Your task to perform on an android device: Turn on the flashlight Image 0: 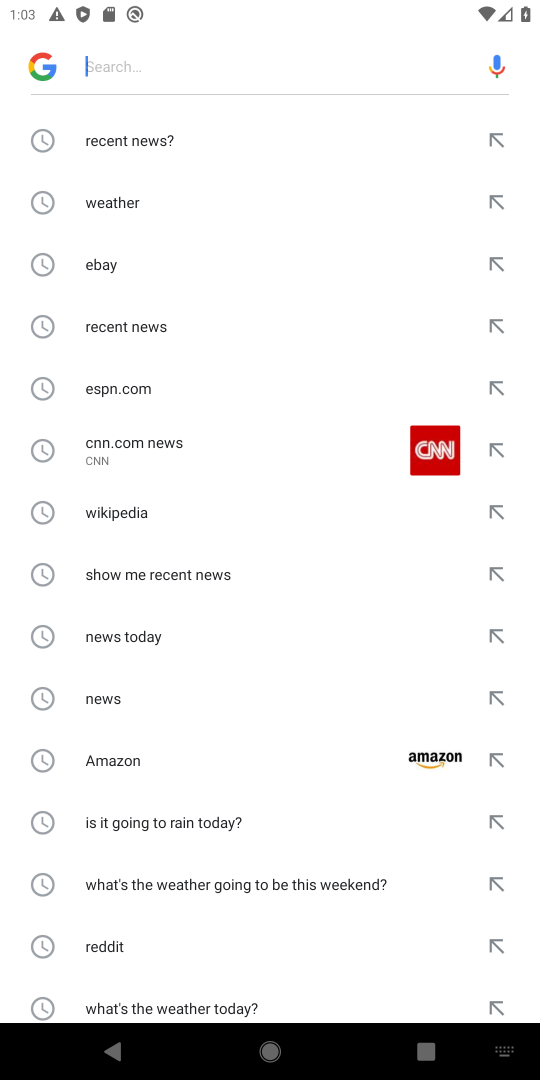
Step 0: press home button
Your task to perform on an android device: Turn on the flashlight Image 1: 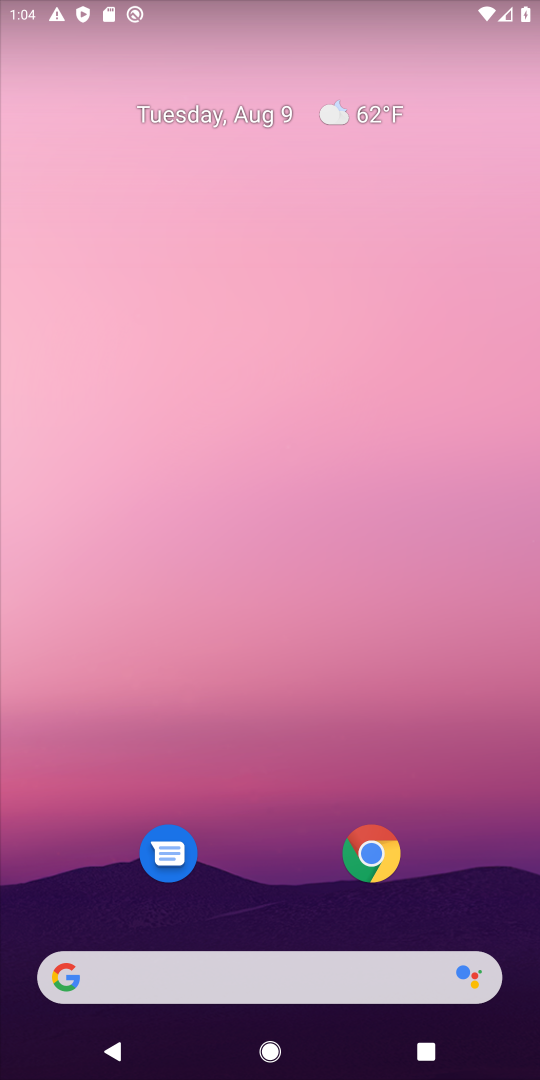
Step 1: task complete